Your task to perform on an android device: Is it going to rain today? Image 0: 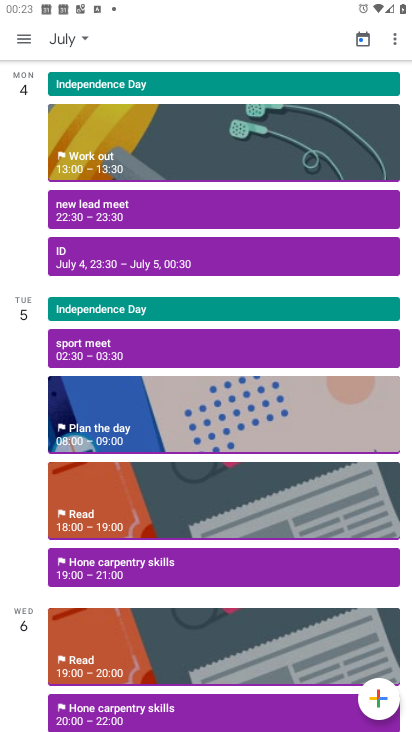
Step 0: press home button
Your task to perform on an android device: Is it going to rain today? Image 1: 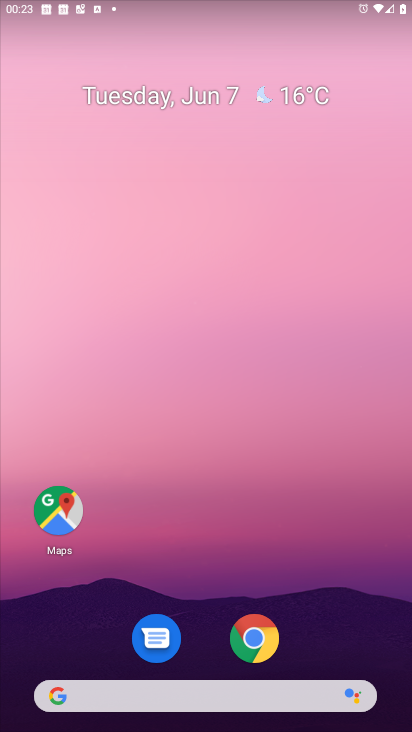
Step 1: click (206, 694)
Your task to perform on an android device: Is it going to rain today? Image 2: 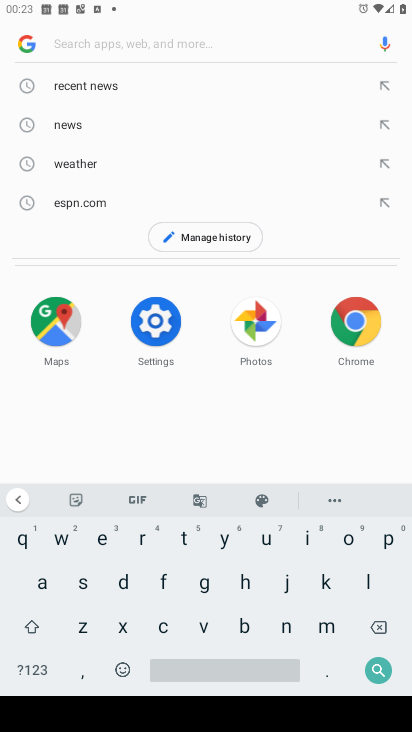
Step 2: click (142, 532)
Your task to perform on an android device: Is it going to rain today? Image 3: 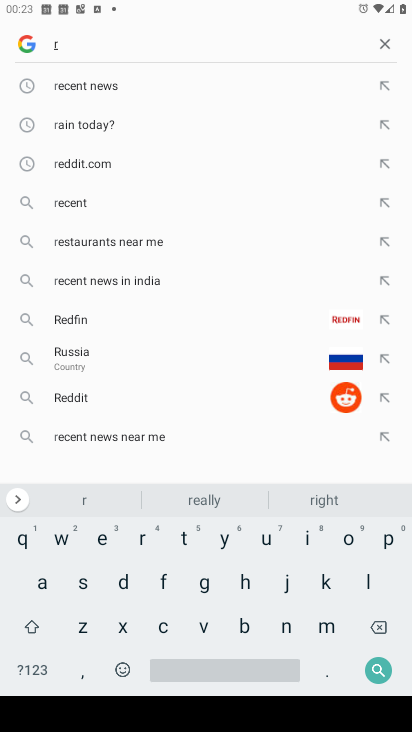
Step 3: click (100, 132)
Your task to perform on an android device: Is it going to rain today? Image 4: 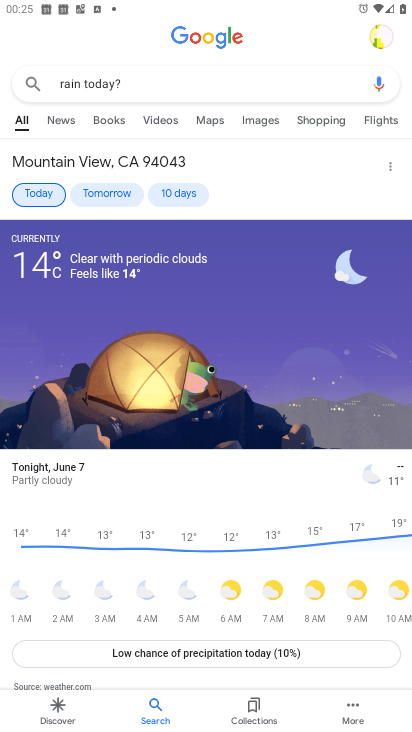
Step 4: task complete